Your task to perform on an android device: Open calendar and show me the first week of next month Image 0: 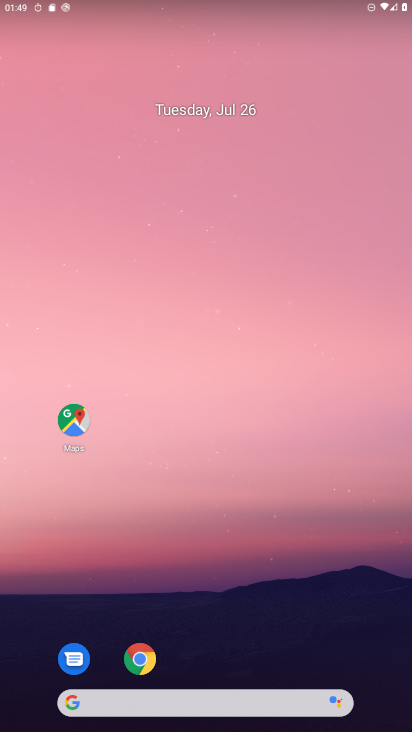
Step 0: drag from (21, 688) to (237, 50)
Your task to perform on an android device: Open calendar and show me the first week of next month Image 1: 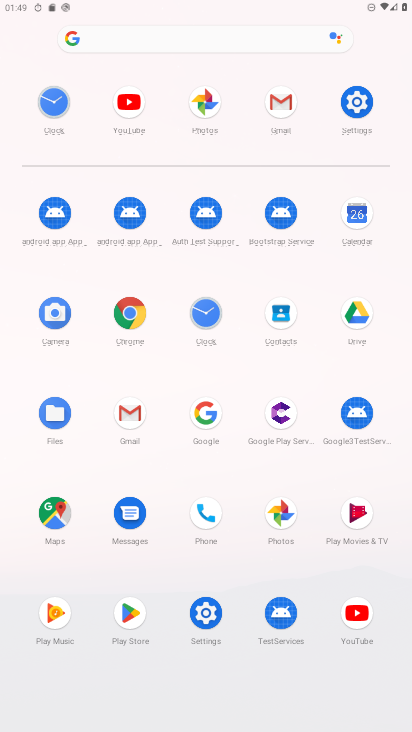
Step 1: click (357, 213)
Your task to perform on an android device: Open calendar and show me the first week of next month Image 2: 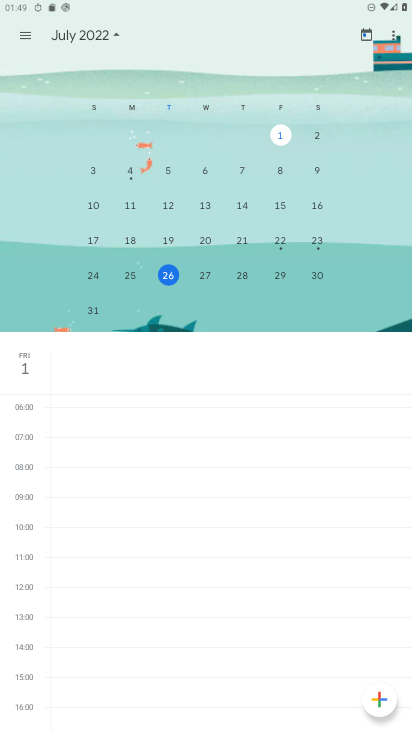
Step 2: task complete